Your task to perform on an android device: Open ESPN.com Image 0: 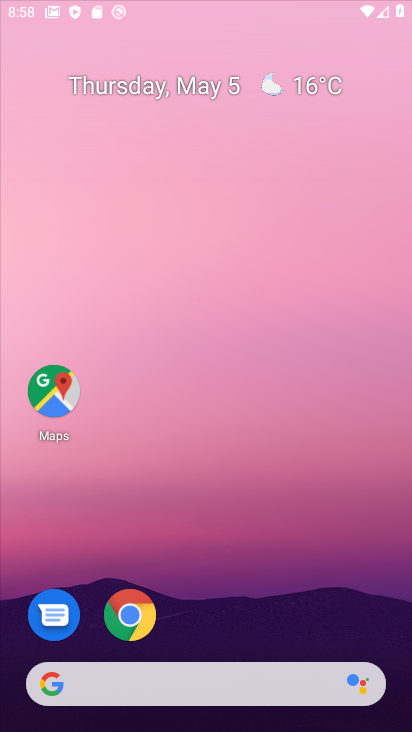
Step 0: click (57, 394)
Your task to perform on an android device: Open ESPN.com Image 1: 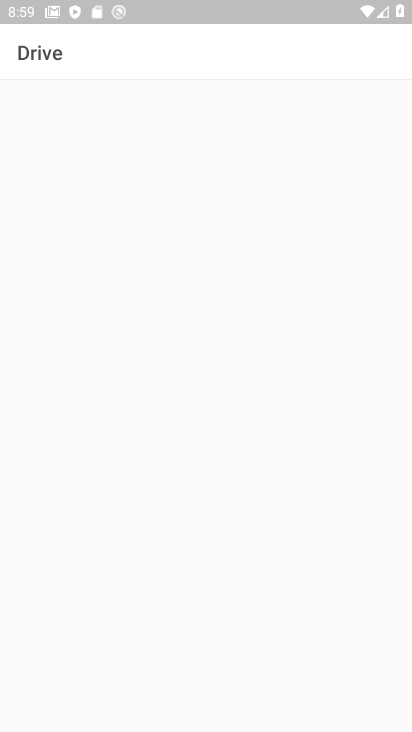
Step 1: press home button
Your task to perform on an android device: Open ESPN.com Image 2: 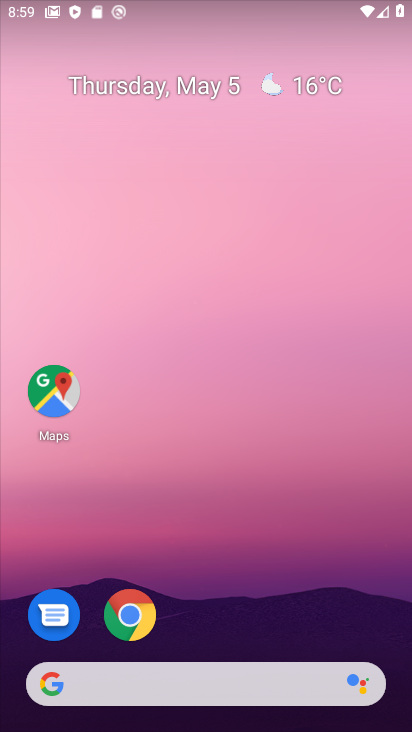
Step 2: drag from (234, 611) to (272, 101)
Your task to perform on an android device: Open ESPN.com Image 3: 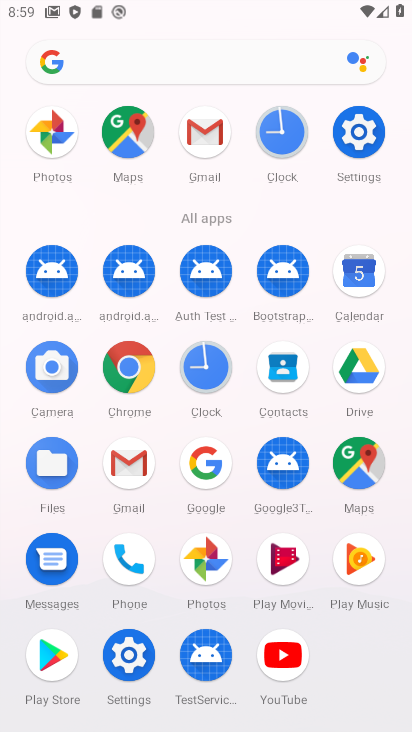
Step 3: click (202, 460)
Your task to perform on an android device: Open ESPN.com Image 4: 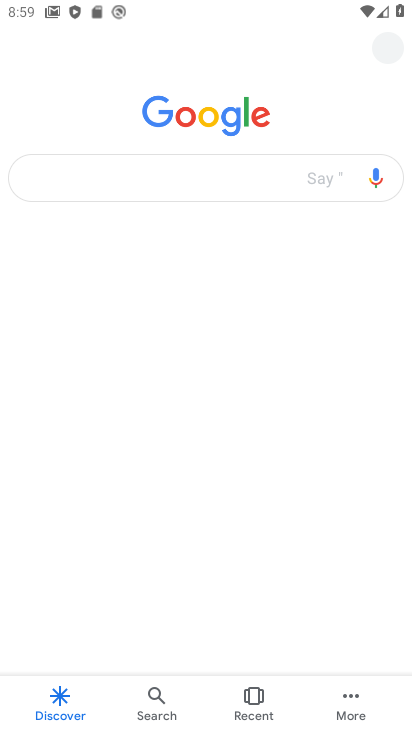
Step 4: click (201, 182)
Your task to perform on an android device: Open ESPN.com Image 5: 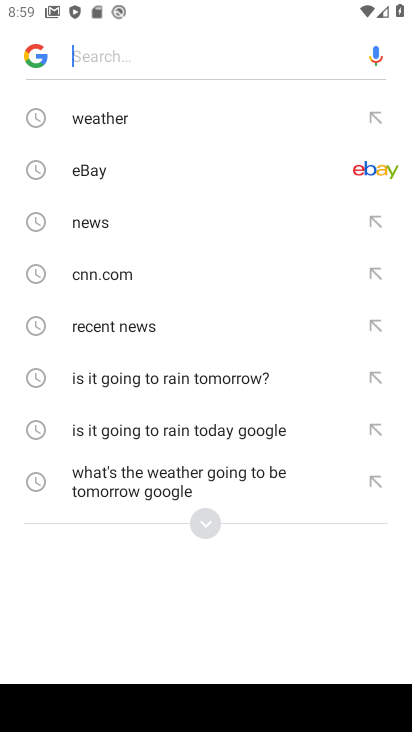
Step 5: type "espn.com"
Your task to perform on an android device: Open ESPN.com Image 6: 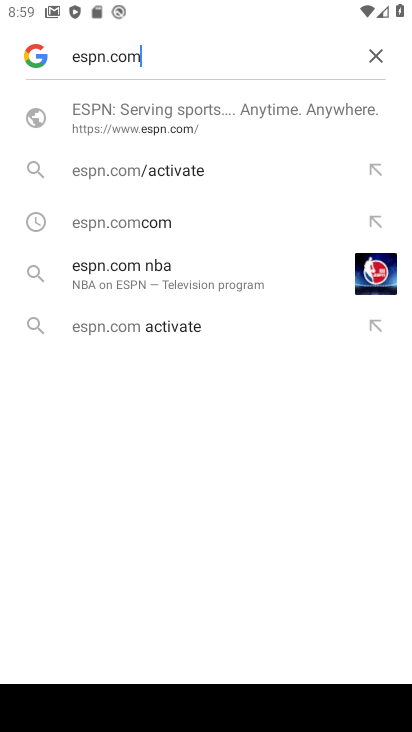
Step 6: click (202, 129)
Your task to perform on an android device: Open ESPN.com Image 7: 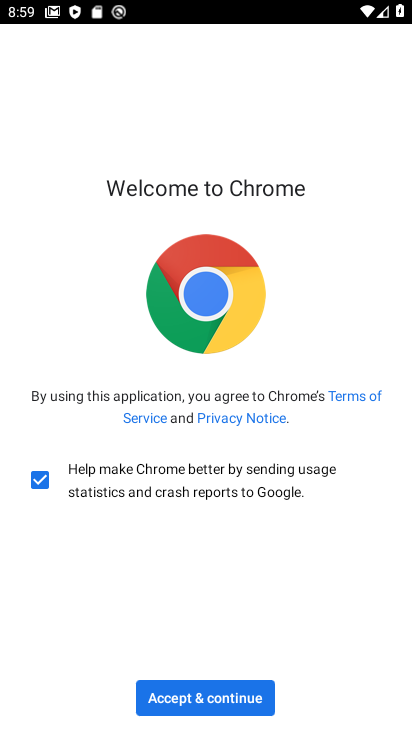
Step 7: click (198, 691)
Your task to perform on an android device: Open ESPN.com Image 8: 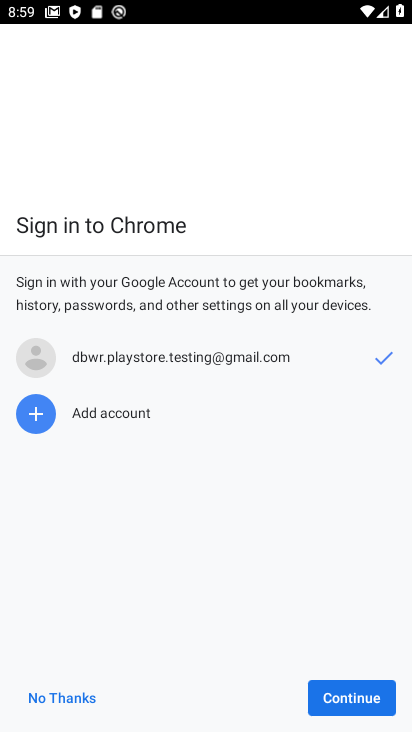
Step 8: click (364, 703)
Your task to perform on an android device: Open ESPN.com Image 9: 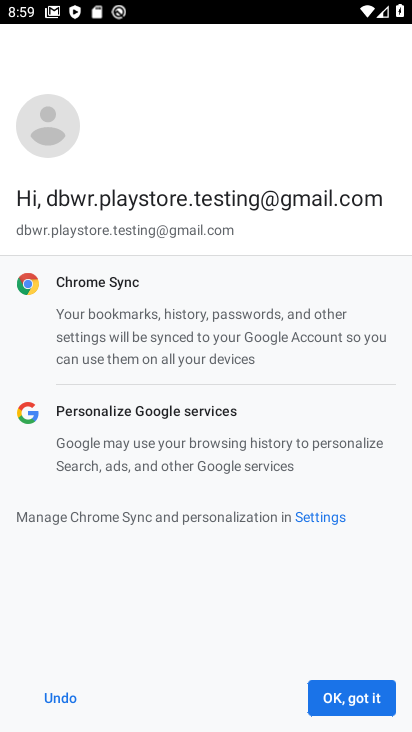
Step 9: click (363, 700)
Your task to perform on an android device: Open ESPN.com Image 10: 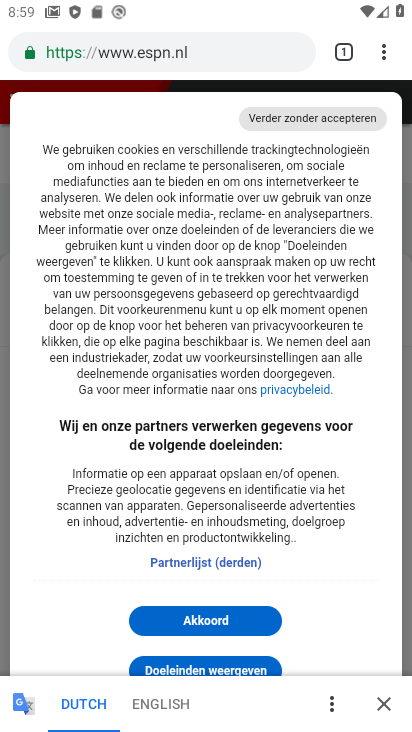
Step 10: task complete